Your task to perform on an android device: Clear the cart on ebay. Image 0: 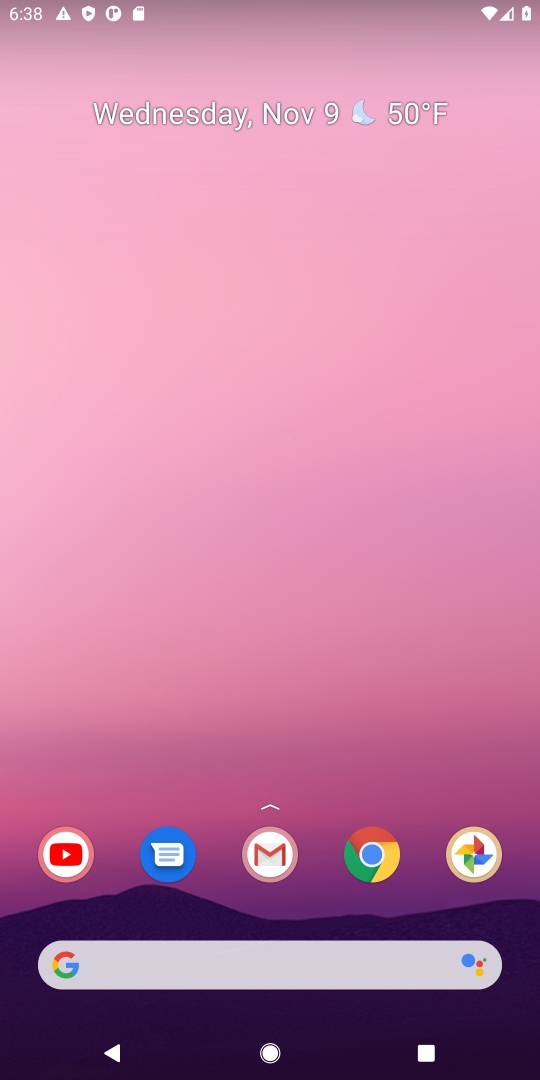
Step 0: click (214, 956)
Your task to perform on an android device: Clear the cart on ebay. Image 1: 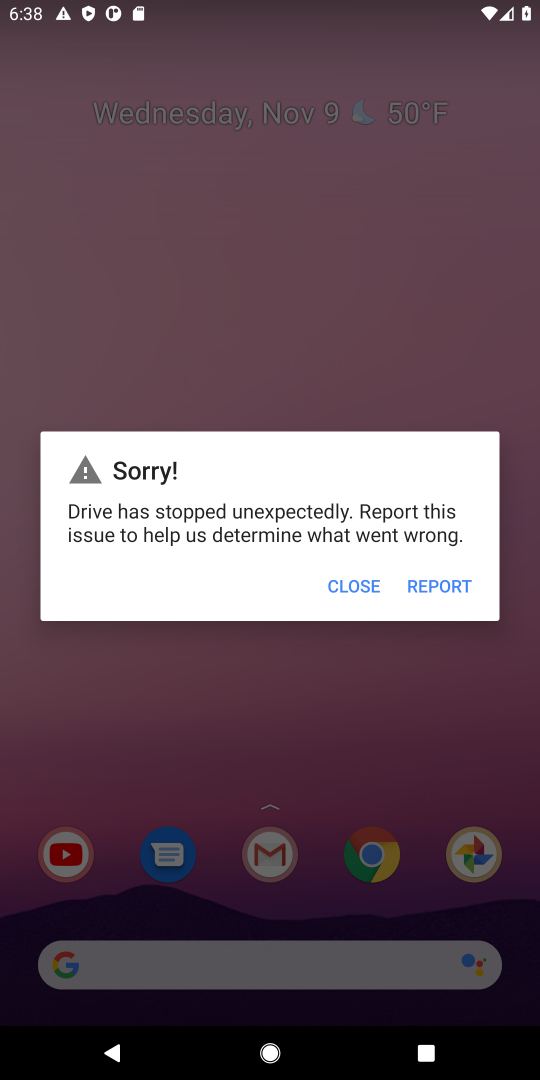
Step 1: click (367, 576)
Your task to perform on an android device: Clear the cart on ebay. Image 2: 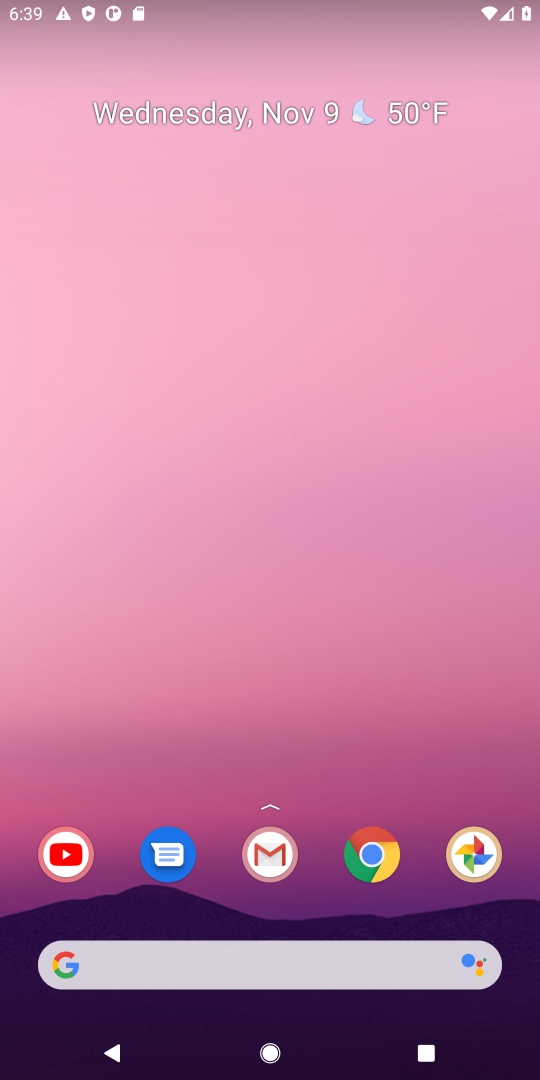
Step 2: click (190, 975)
Your task to perform on an android device: Clear the cart on ebay. Image 3: 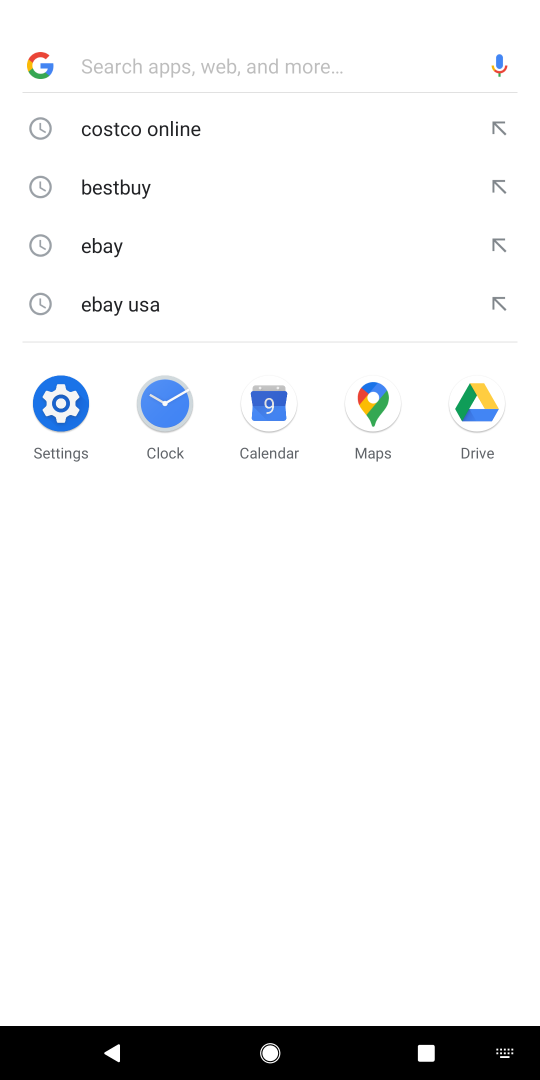
Step 3: click (182, 244)
Your task to perform on an android device: Clear the cart on ebay. Image 4: 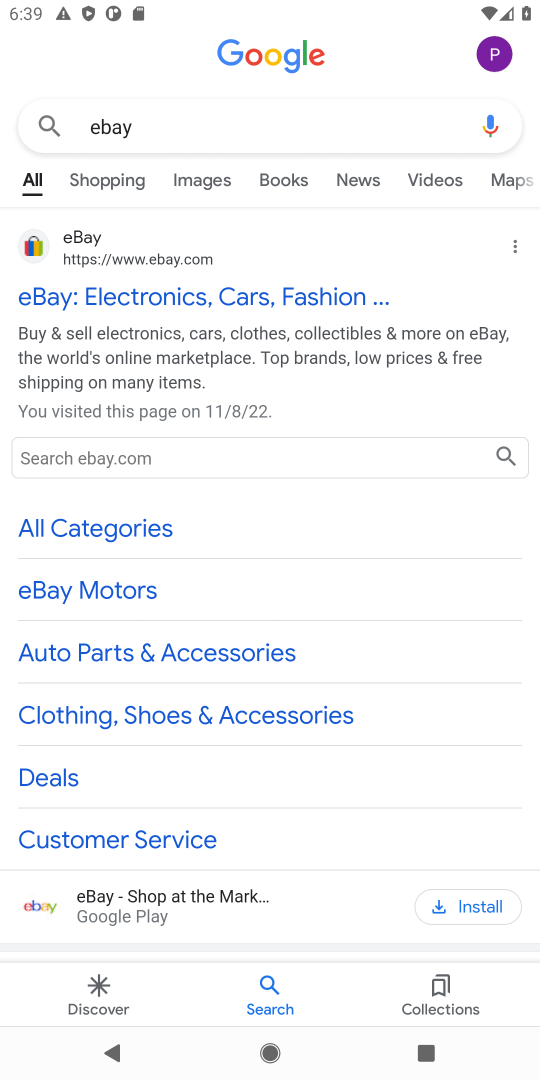
Step 4: click (184, 290)
Your task to perform on an android device: Clear the cart on ebay. Image 5: 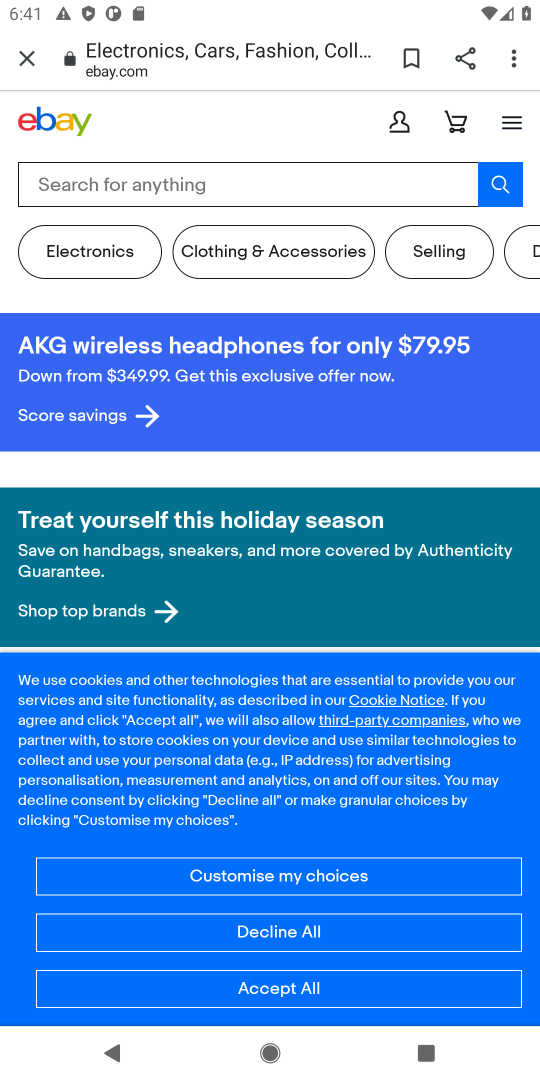
Step 5: task complete